Your task to perform on an android device: Open the web browser Image 0: 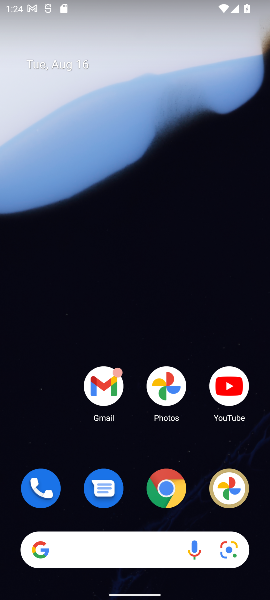
Step 0: click (169, 494)
Your task to perform on an android device: Open the web browser Image 1: 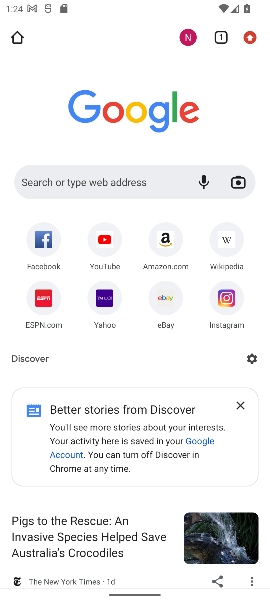
Step 1: task complete